Your task to perform on an android device: turn vacation reply on in the gmail app Image 0: 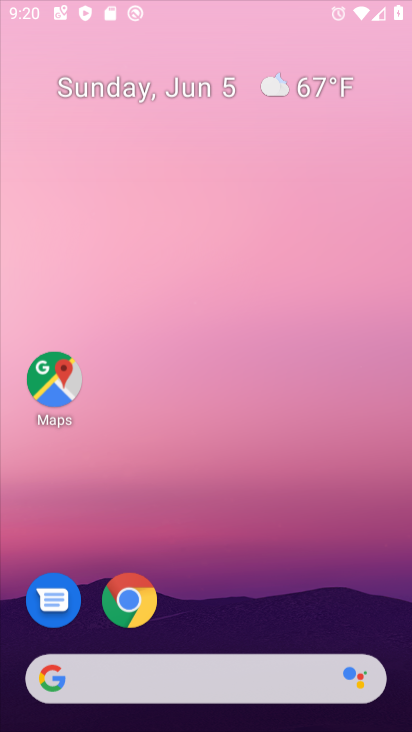
Step 0: drag from (352, 505) to (271, 89)
Your task to perform on an android device: turn vacation reply on in the gmail app Image 1: 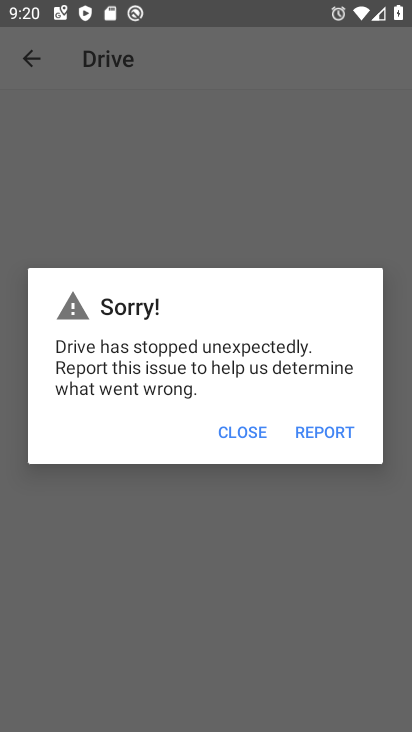
Step 1: press home button
Your task to perform on an android device: turn vacation reply on in the gmail app Image 2: 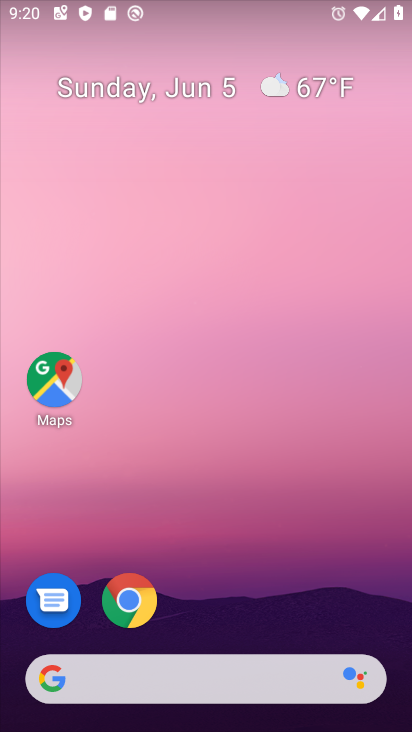
Step 2: drag from (394, 643) to (291, 41)
Your task to perform on an android device: turn vacation reply on in the gmail app Image 3: 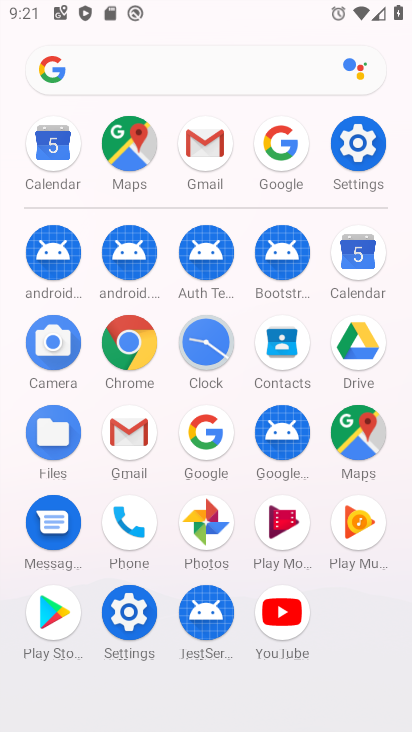
Step 3: click (142, 456)
Your task to perform on an android device: turn vacation reply on in the gmail app Image 4: 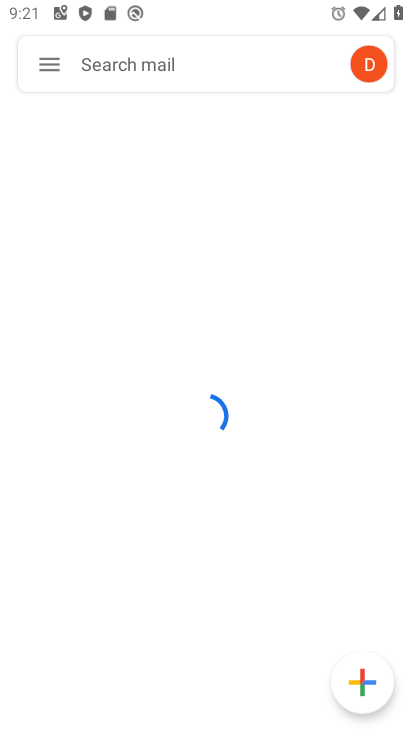
Step 4: click (60, 53)
Your task to perform on an android device: turn vacation reply on in the gmail app Image 5: 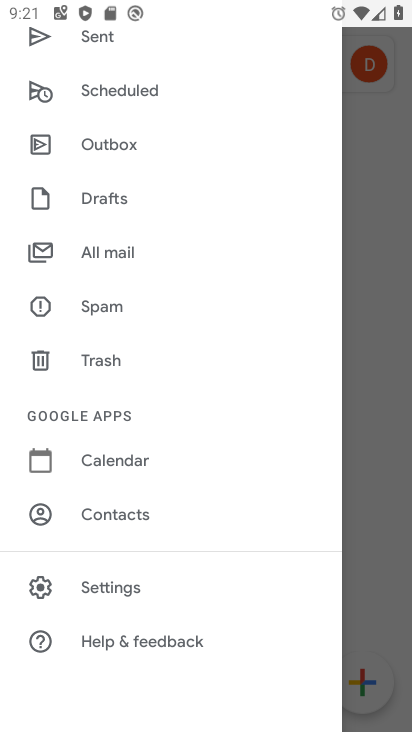
Step 5: click (108, 594)
Your task to perform on an android device: turn vacation reply on in the gmail app Image 6: 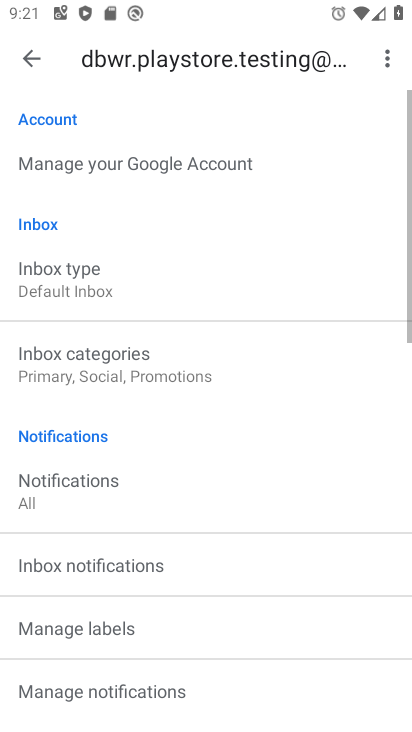
Step 6: drag from (152, 622) to (174, 5)
Your task to perform on an android device: turn vacation reply on in the gmail app Image 7: 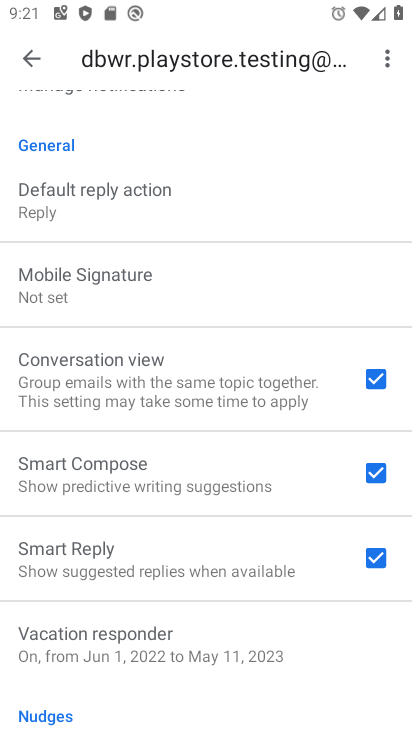
Step 7: click (171, 637)
Your task to perform on an android device: turn vacation reply on in the gmail app Image 8: 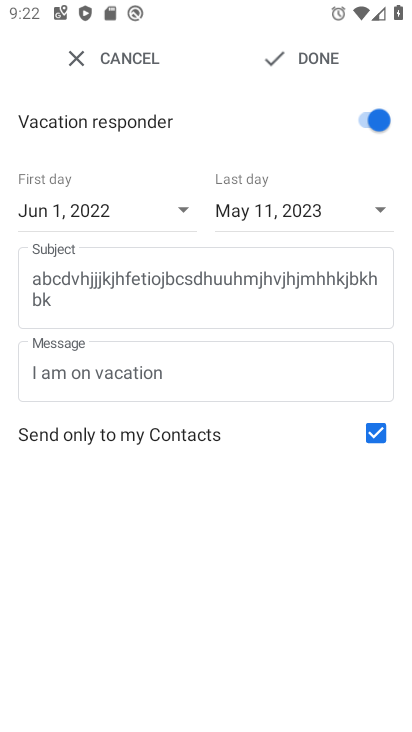
Step 8: task complete